Your task to perform on an android device: set the stopwatch Image 0: 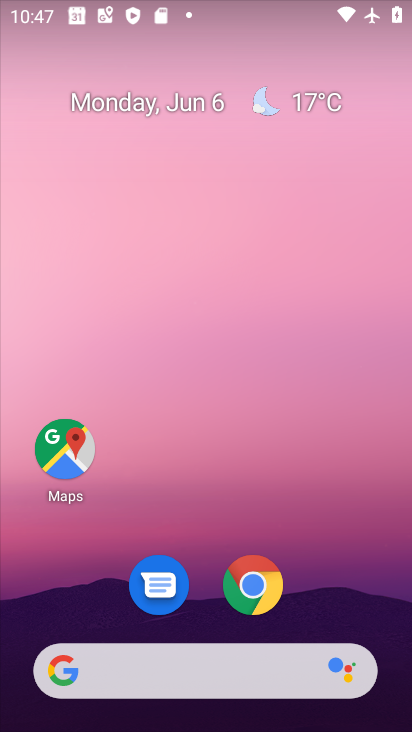
Step 0: drag from (228, 516) to (258, 26)
Your task to perform on an android device: set the stopwatch Image 1: 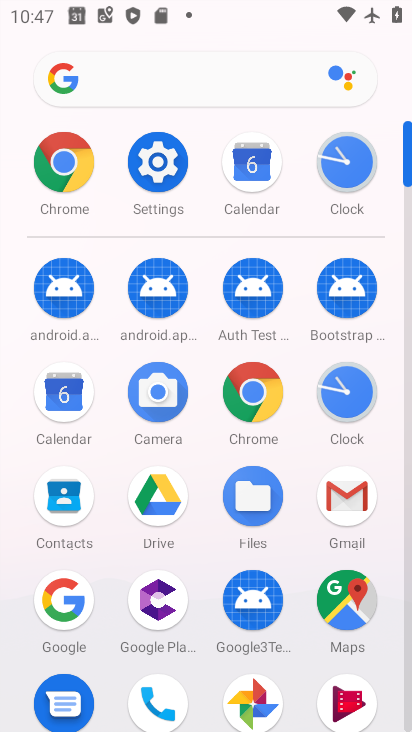
Step 1: click (352, 168)
Your task to perform on an android device: set the stopwatch Image 2: 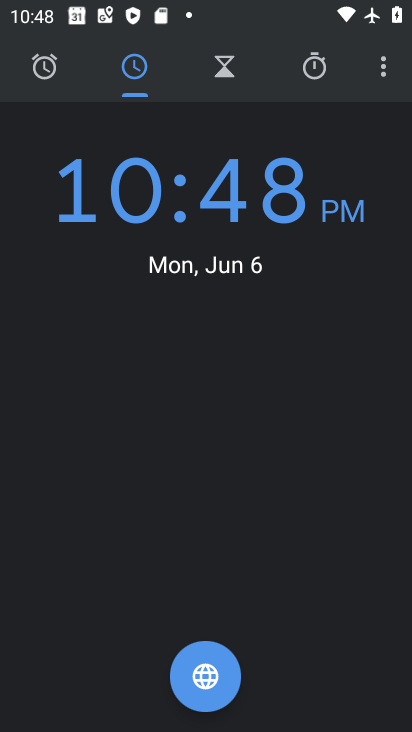
Step 2: click (304, 58)
Your task to perform on an android device: set the stopwatch Image 3: 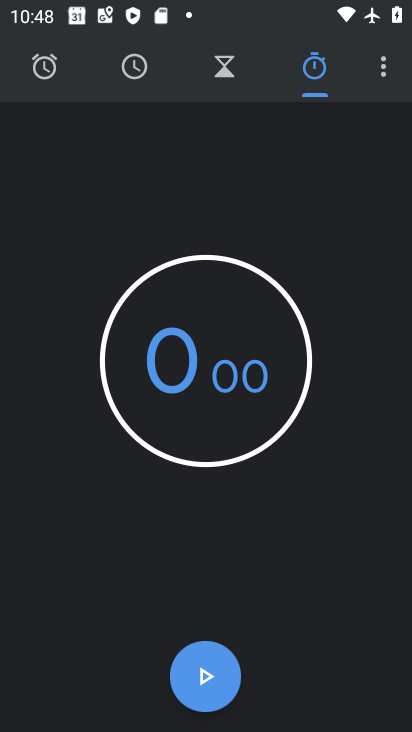
Step 3: task complete